Your task to perform on an android device: Open eBay Image 0: 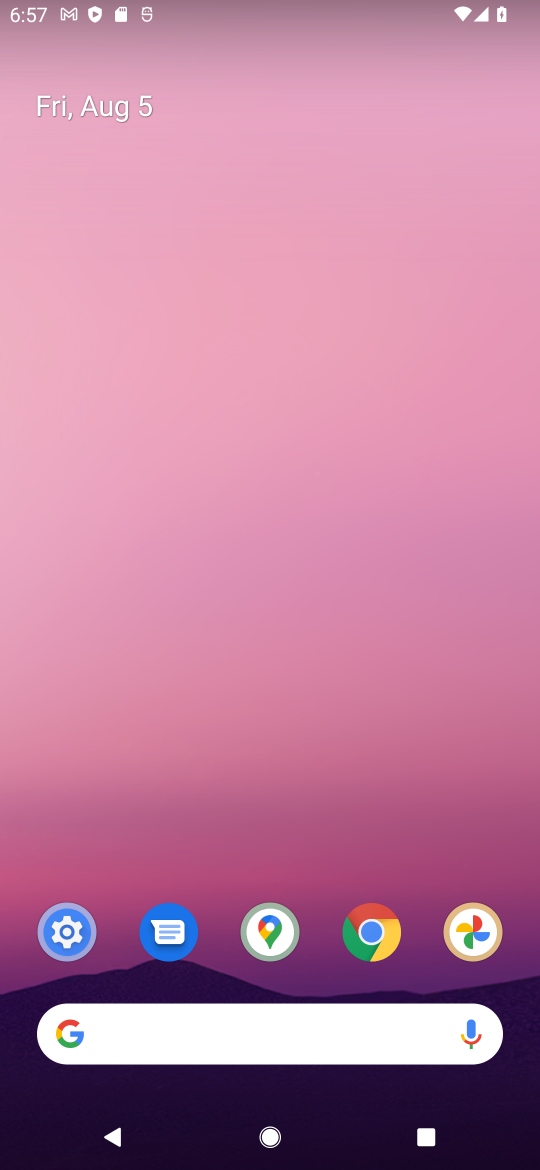
Step 0: drag from (330, 843) to (305, 231)
Your task to perform on an android device: Open eBay Image 1: 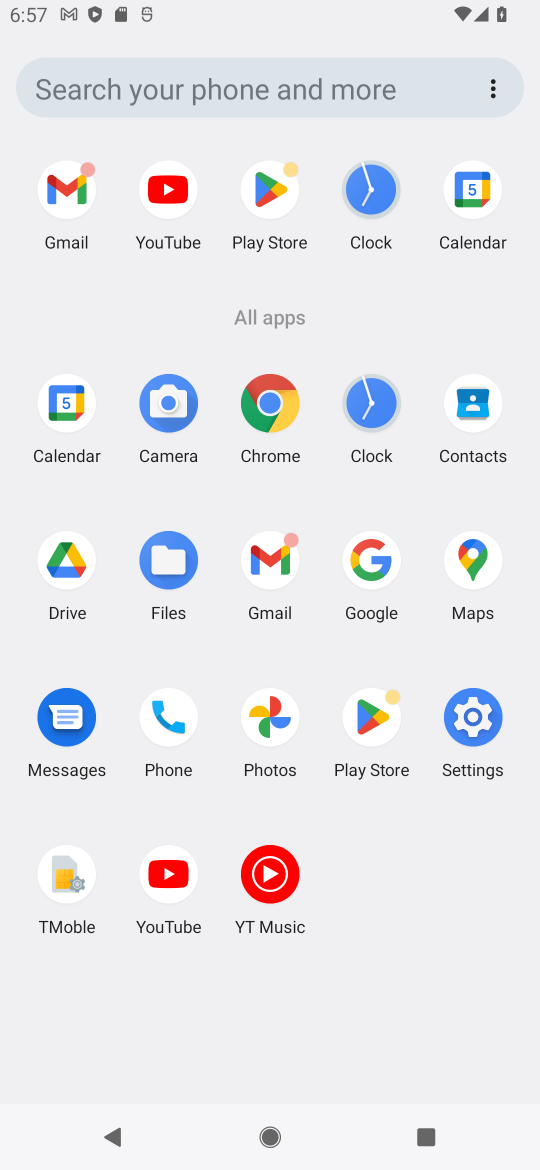
Step 1: click (272, 401)
Your task to perform on an android device: Open eBay Image 2: 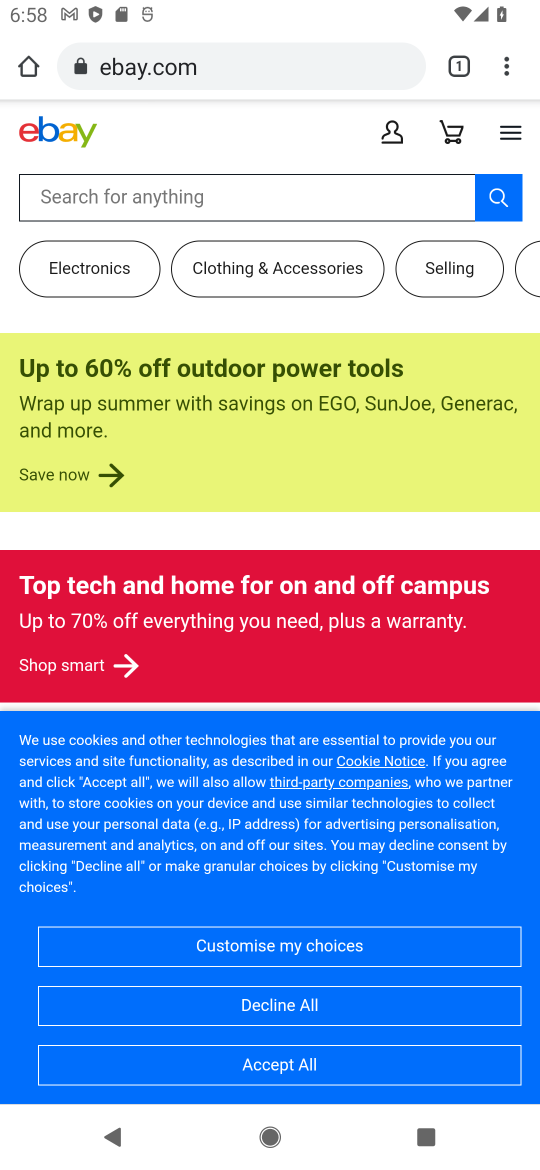
Step 2: task complete